Your task to perform on an android device: Play the last video I watched on Youtube Image 0: 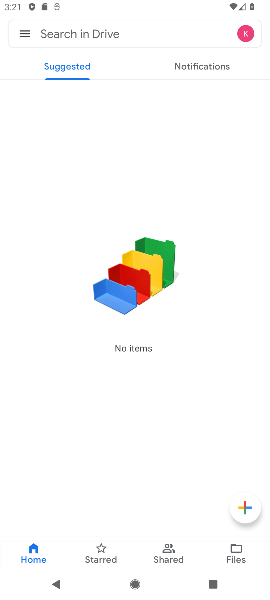
Step 0: click (171, 341)
Your task to perform on an android device: Play the last video I watched on Youtube Image 1: 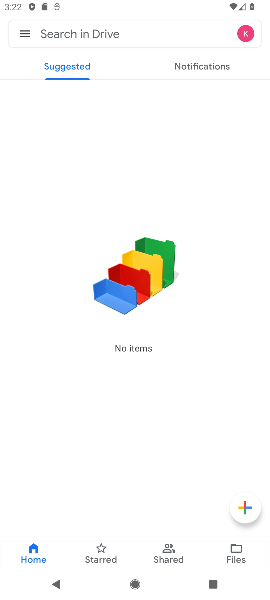
Step 1: press home button
Your task to perform on an android device: Play the last video I watched on Youtube Image 2: 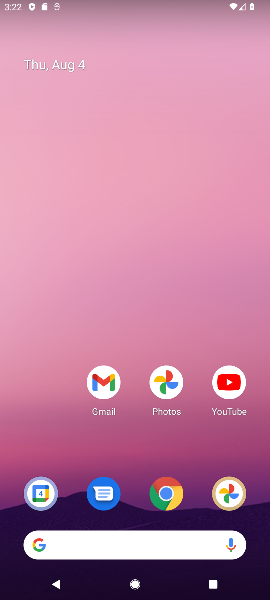
Step 2: drag from (111, 519) to (155, 230)
Your task to perform on an android device: Play the last video I watched on Youtube Image 3: 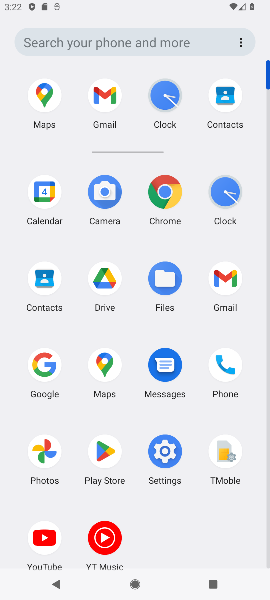
Step 3: click (38, 533)
Your task to perform on an android device: Play the last video I watched on Youtube Image 4: 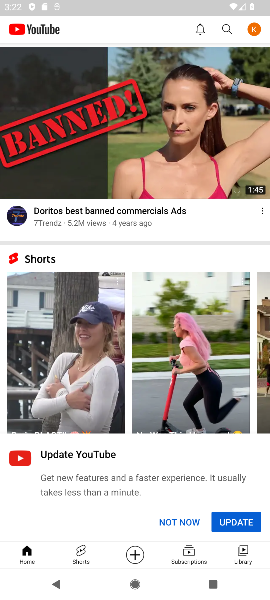
Step 4: click (233, 545)
Your task to perform on an android device: Play the last video I watched on Youtube Image 5: 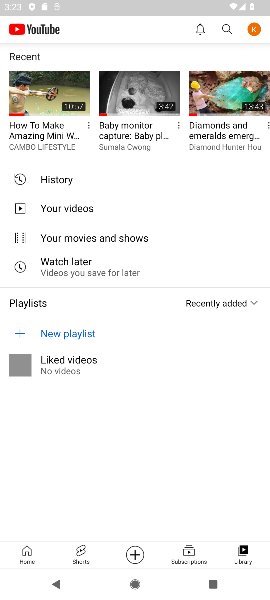
Step 5: press home button
Your task to perform on an android device: Play the last video I watched on Youtube Image 6: 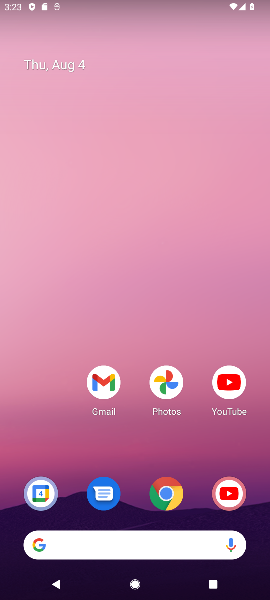
Step 6: drag from (152, 523) to (159, 206)
Your task to perform on an android device: Play the last video I watched on Youtube Image 7: 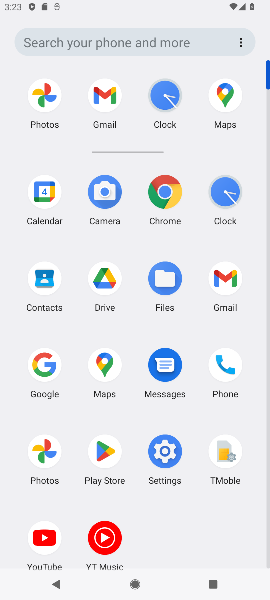
Step 7: click (25, 538)
Your task to perform on an android device: Play the last video I watched on Youtube Image 8: 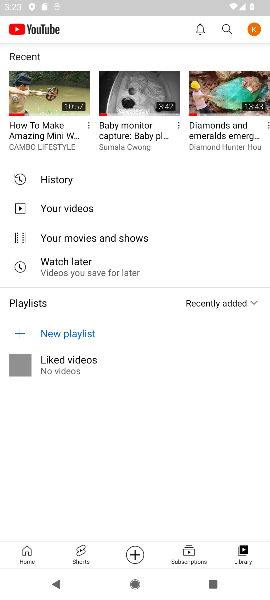
Step 8: click (43, 112)
Your task to perform on an android device: Play the last video I watched on Youtube Image 9: 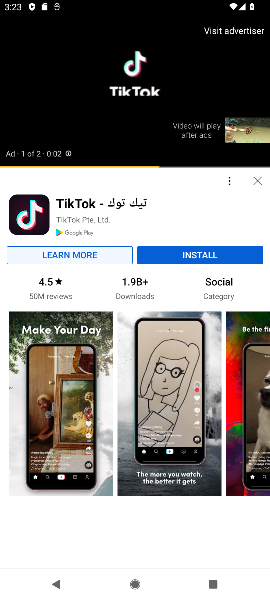
Step 9: task complete